Your task to perform on an android device: turn off smart reply in the gmail app Image 0: 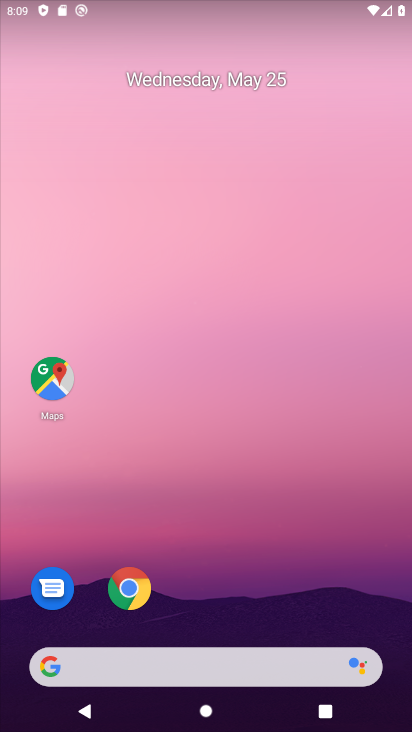
Step 0: press home button
Your task to perform on an android device: turn off smart reply in the gmail app Image 1: 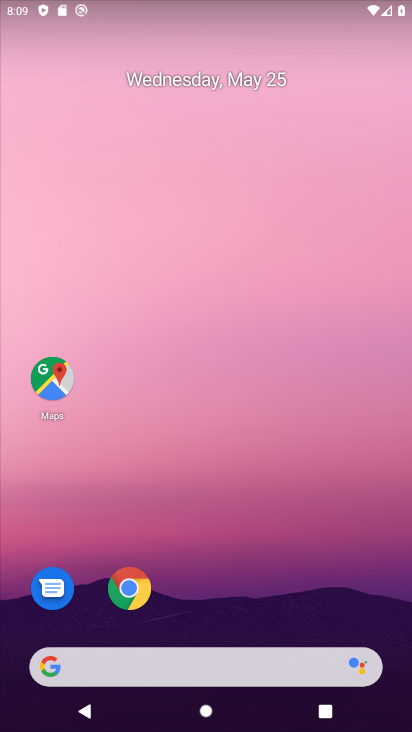
Step 1: drag from (34, 575) to (227, 143)
Your task to perform on an android device: turn off smart reply in the gmail app Image 2: 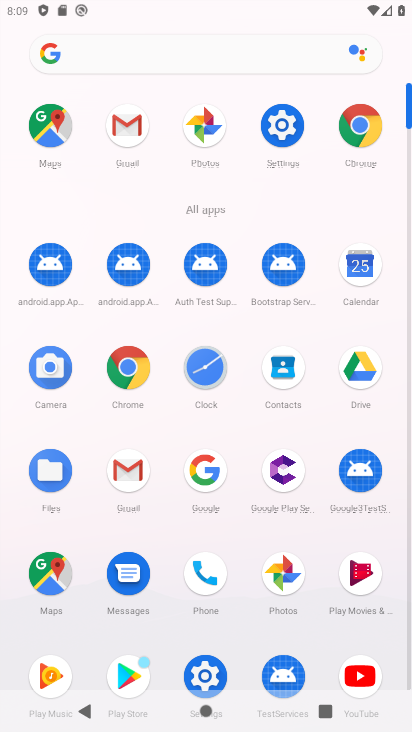
Step 2: click (138, 463)
Your task to perform on an android device: turn off smart reply in the gmail app Image 3: 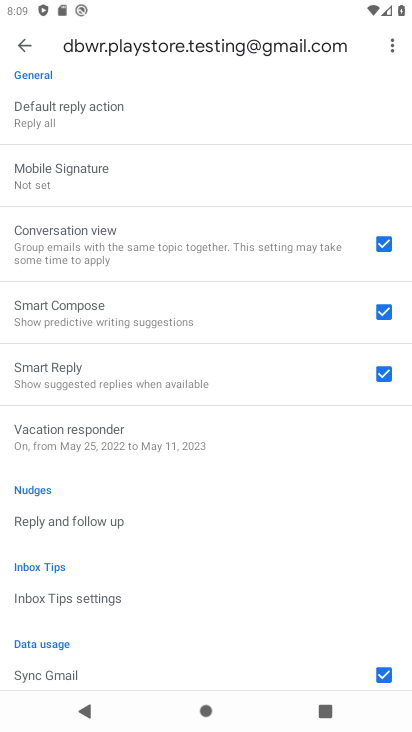
Step 3: click (388, 376)
Your task to perform on an android device: turn off smart reply in the gmail app Image 4: 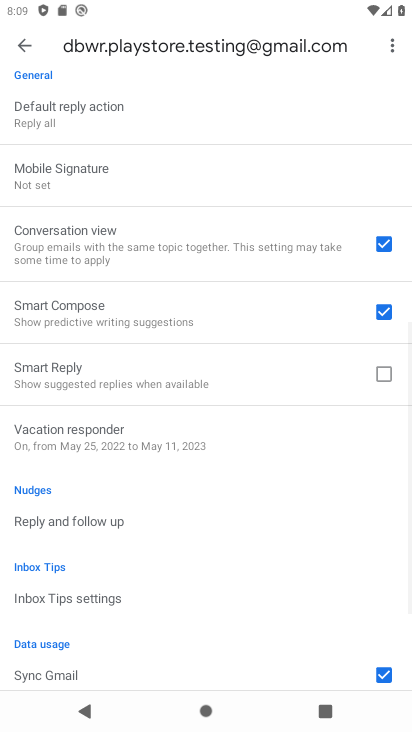
Step 4: task complete